Your task to perform on an android device: Clear the cart on target.com. Image 0: 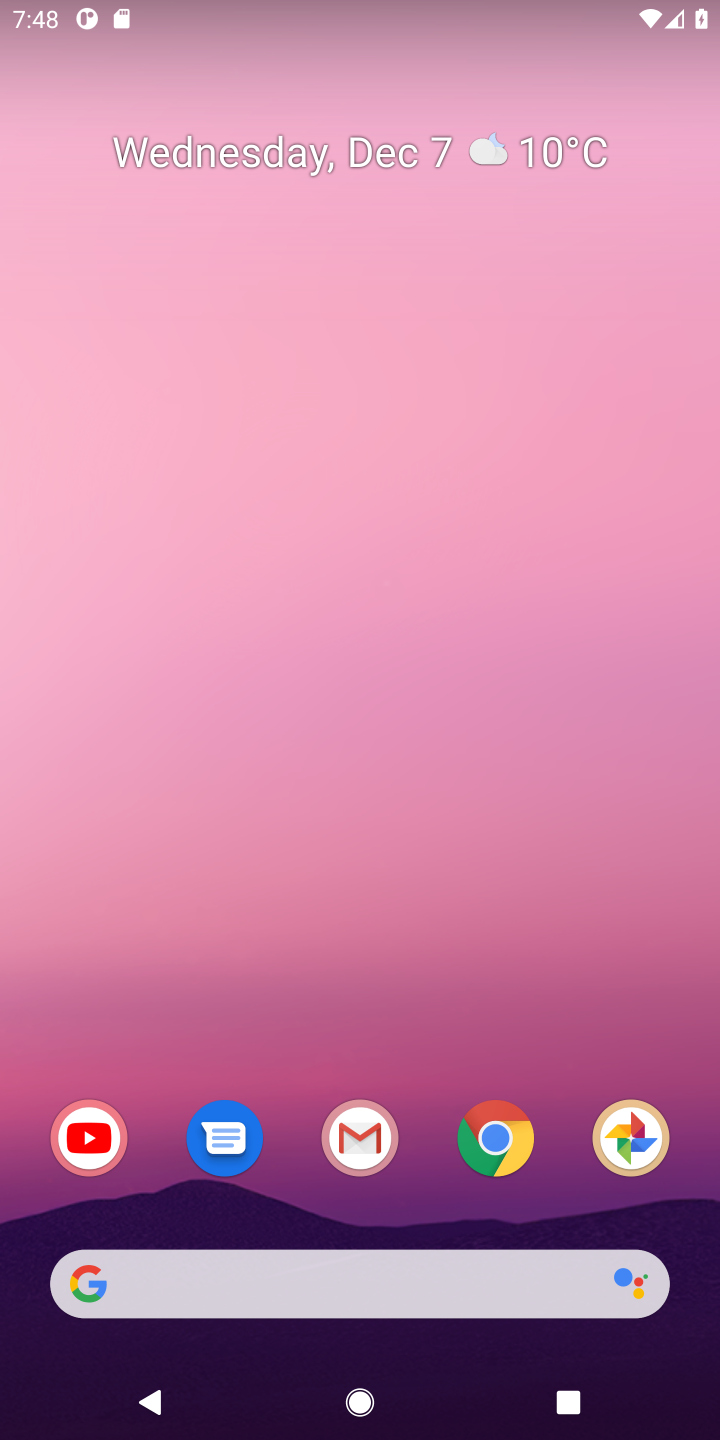
Step 0: press home button
Your task to perform on an android device: Clear the cart on target.com. Image 1: 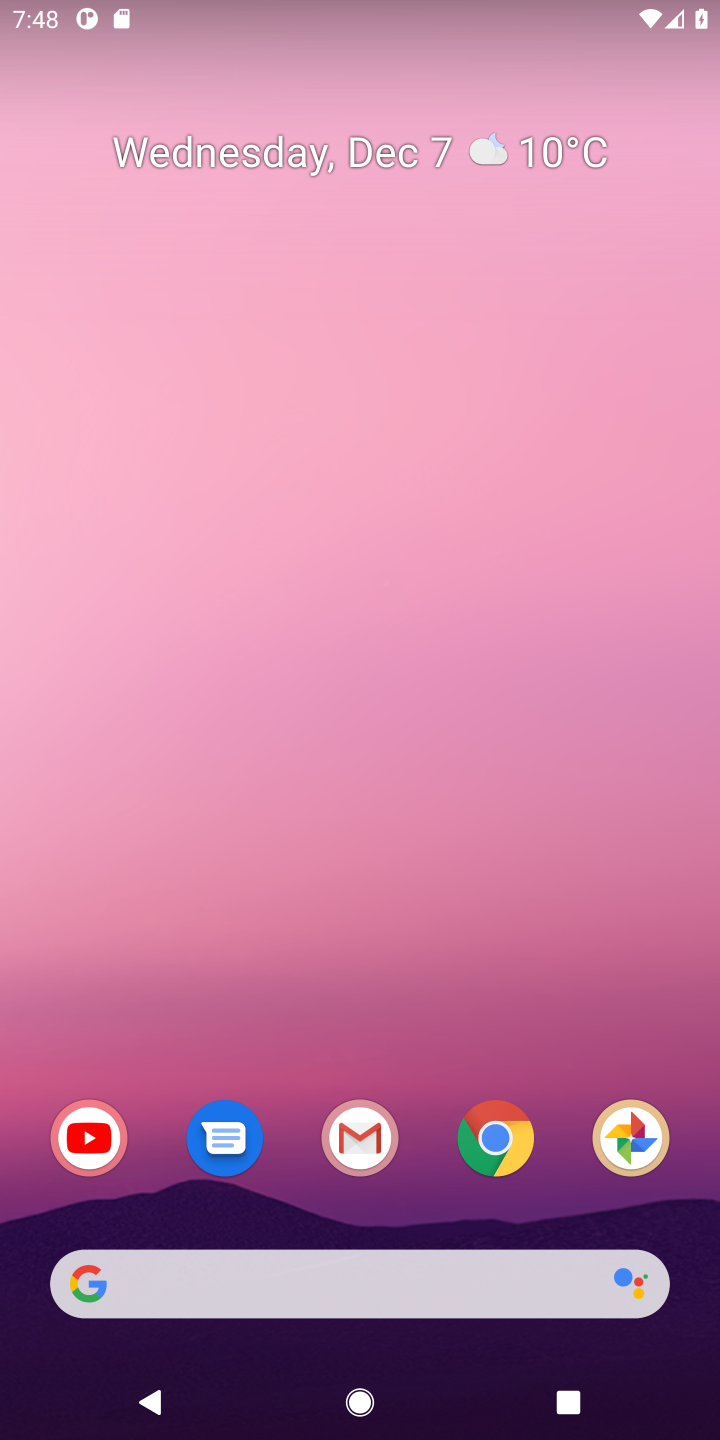
Step 1: click (130, 1277)
Your task to perform on an android device: Clear the cart on target.com. Image 2: 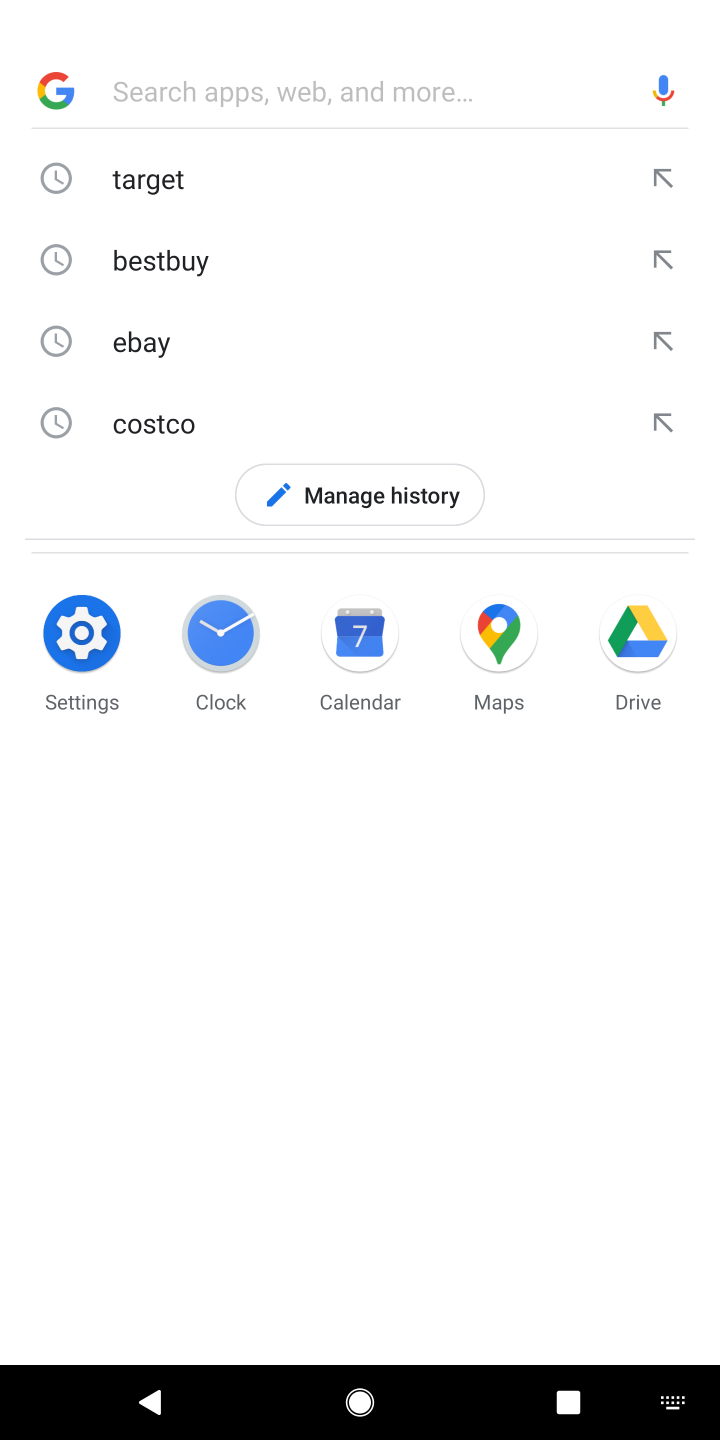
Step 2: click (159, 176)
Your task to perform on an android device: Clear the cart on target.com. Image 3: 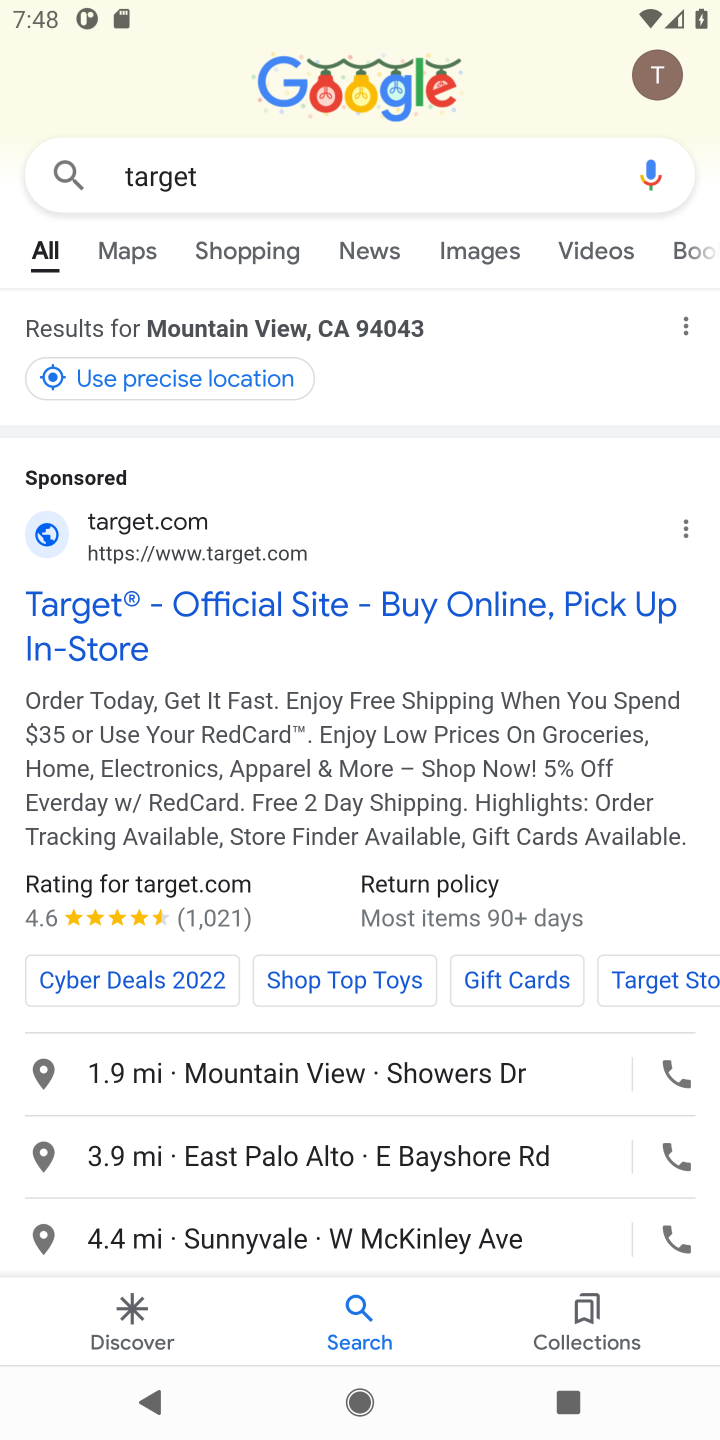
Step 3: click (247, 598)
Your task to perform on an android device: Clear the cart on target.com. Image 4: 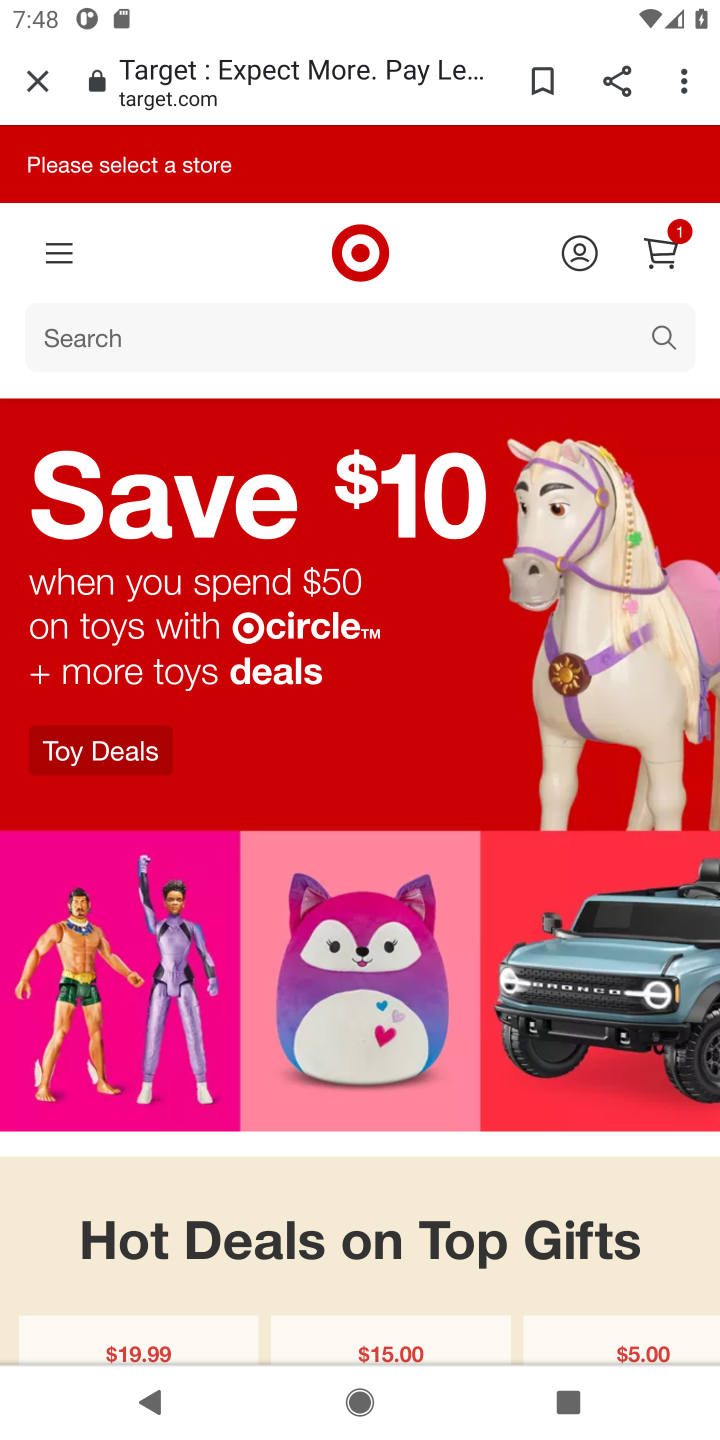
Step 4: click (669, 250)
Your task to perform on an android device: Clear the cart on target.com. Image 5: 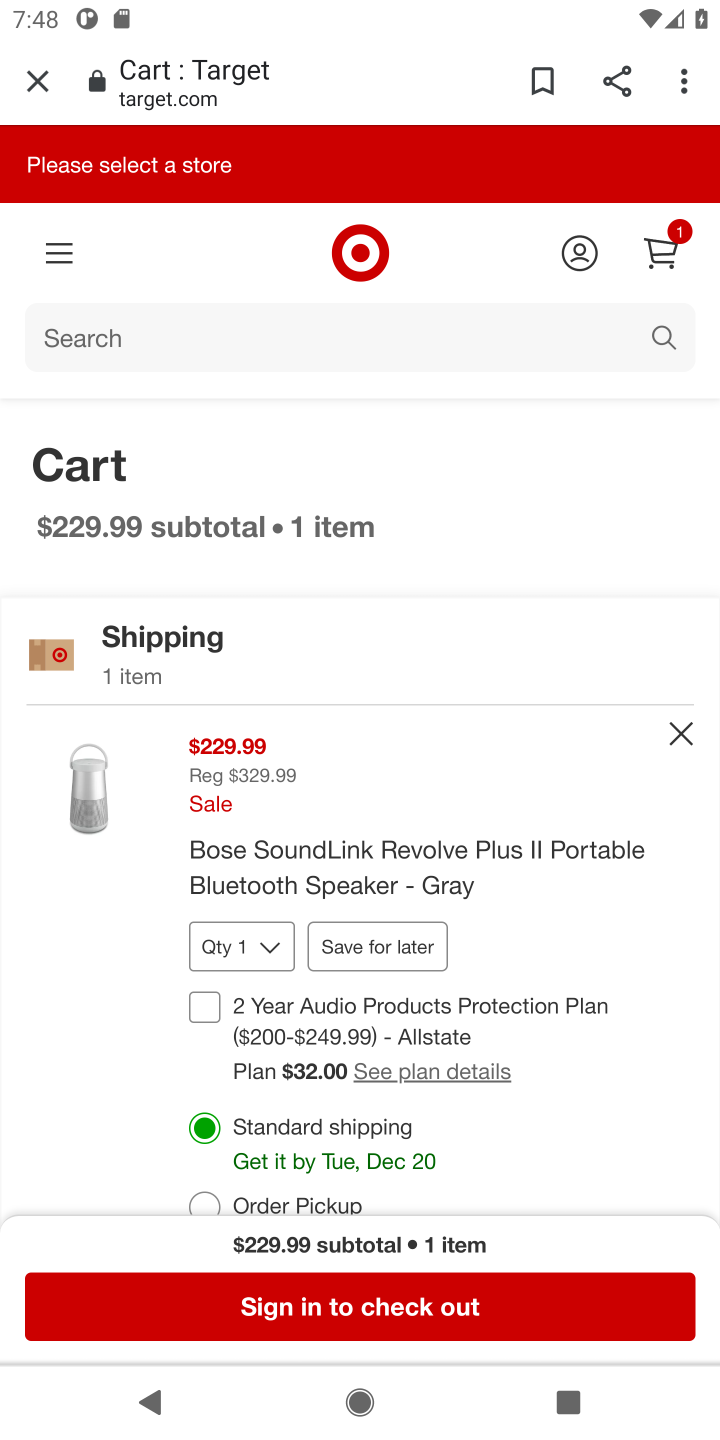
Step 5: click (682, 725)
Your task to perform on an android device: Clear the cart on target.com. Image 6: 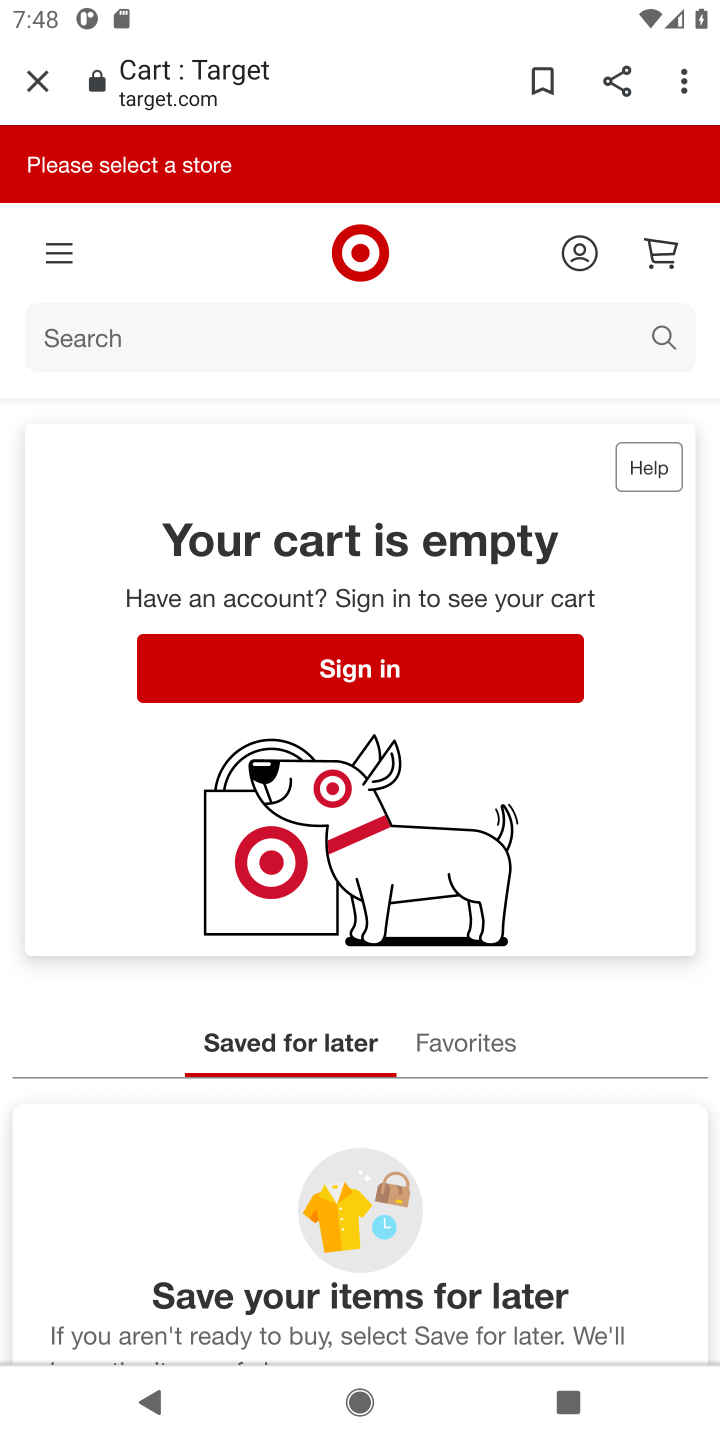
Step 6: task complete